Your task to perform on an android device: Open Google Chrome and open the bookmarks view Image 0: 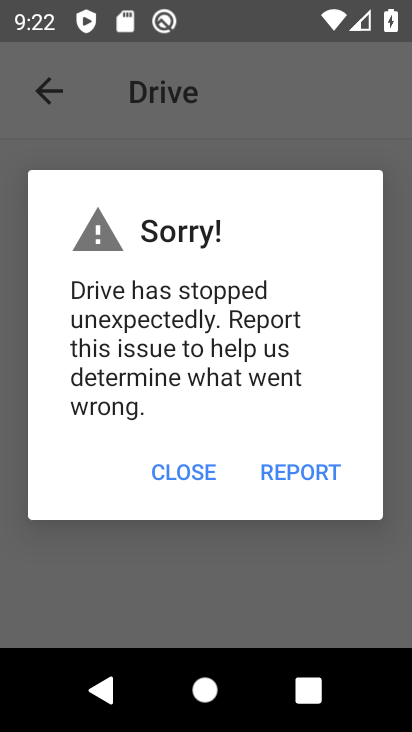
Step 0: press home button
Your task to perform on an android device: Open Google Chrome and open the bookmarks view Image 1: 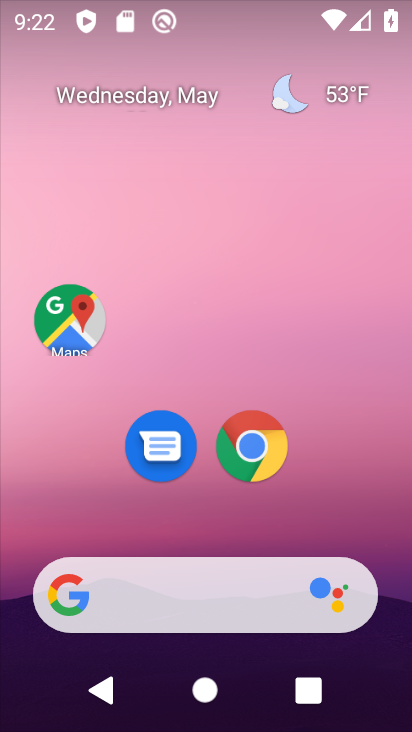
Step 1: click (249, 454)
Your task to perform on an android device: Open Google Chrome and open the bookmarks view Image 2: 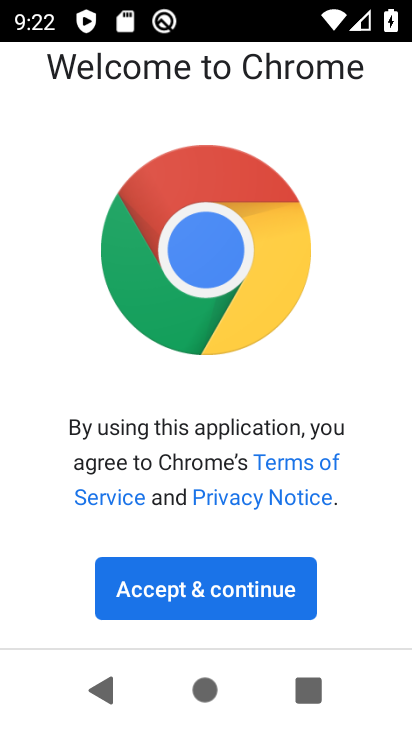
Step 2: click (281, 601)
Your task to perform on an android device: Open Google Chrome and open the bookmarks view Image 3: 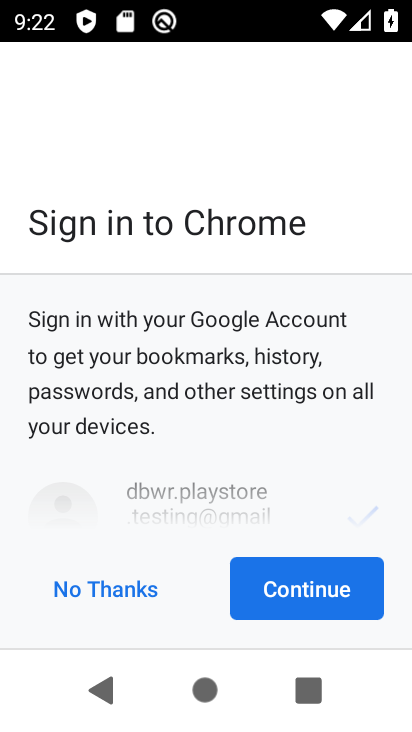
Step 3: click (281, 601)
Your task to perform on an android device: Open Google Chrome and open the bookmarks view Image 4: 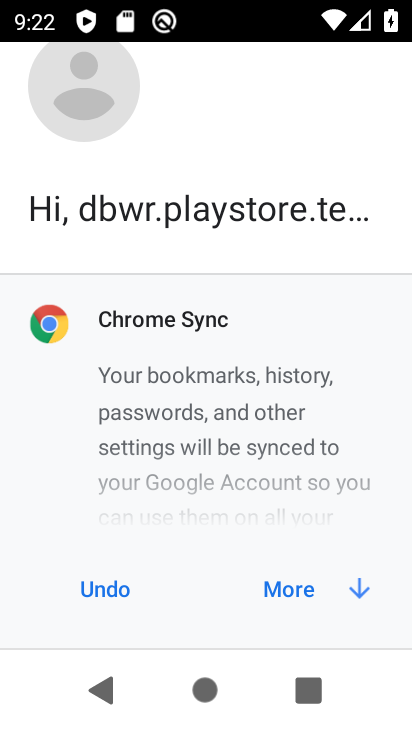
Step 4: click (281, 601)
Your task to perform on an android device: Open Google Chrome and open the bookmarks view Image 5: 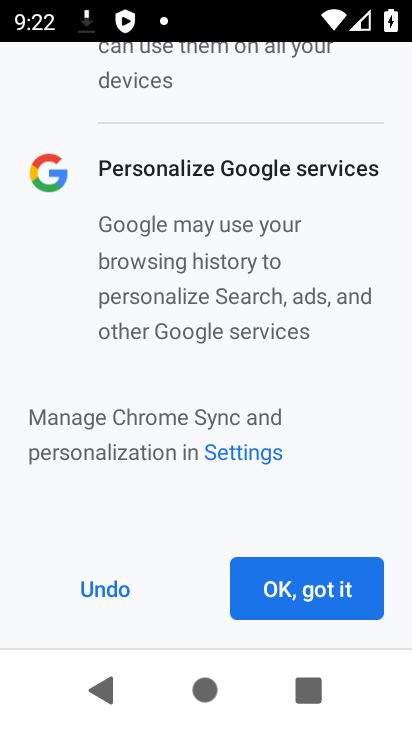
Step 5: click (281, 601)
Your task to perform on an android device: Open Google Chrome and open the bookmarks view Image 6: 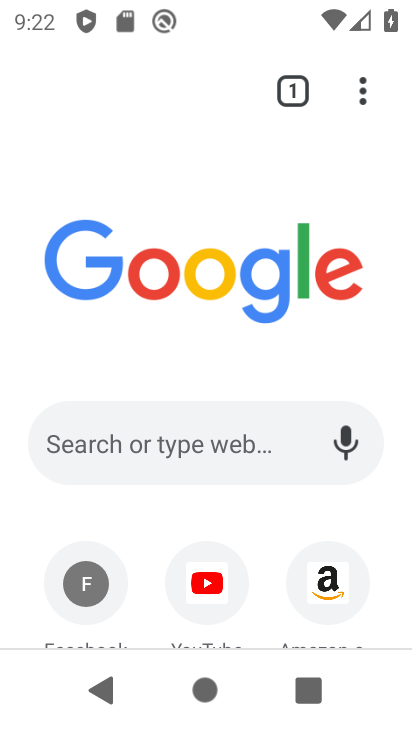
Step 6: click (370, 112)
Your task to perform on an android device: Open Google Chrome and open the bookmarks view Image 7: 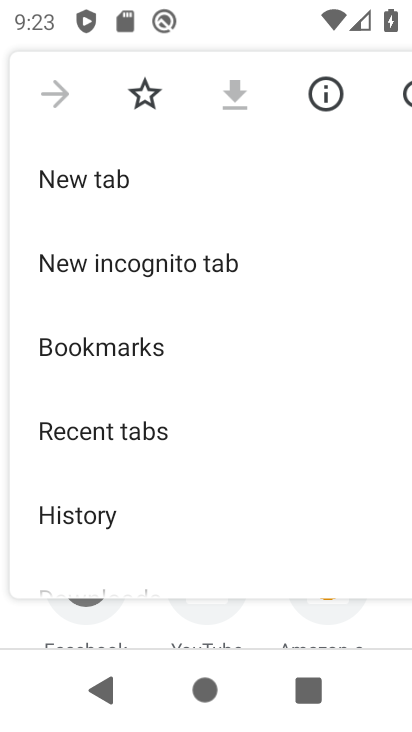
Step 7: click (171, 351)
Your task to perform on an android device: Open Google Chrome and open the bookmarks view Image 8: 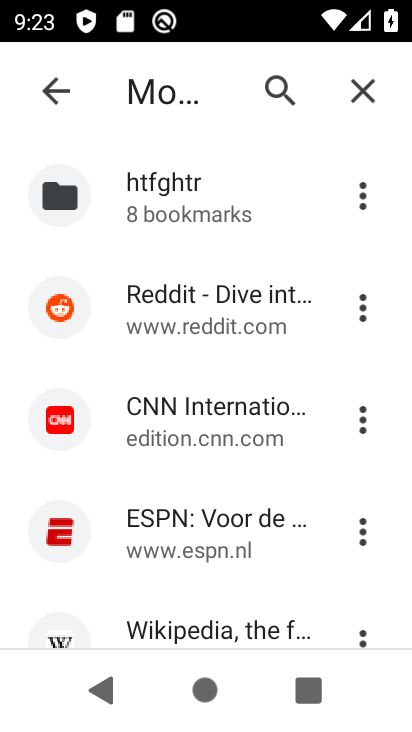
Step 8: task complete